Your task to perform on an android device: Go to Google maps Image 0: 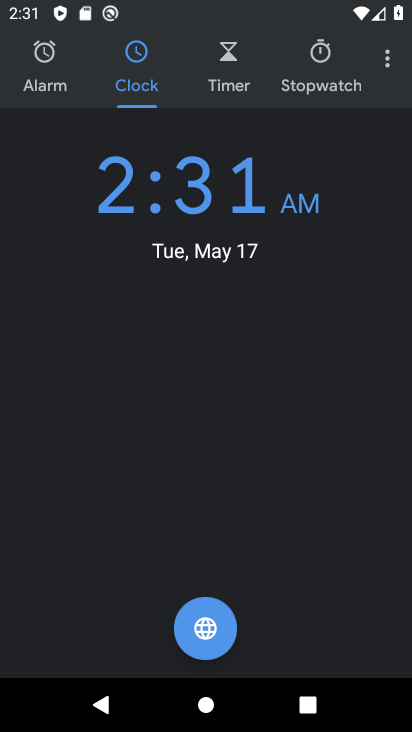
Step 0: press home button
Your task to perform on an android device: Go to Google maps Image 1: 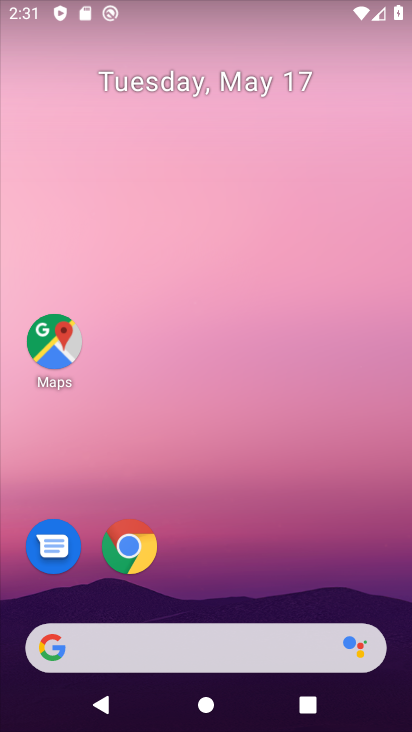
Step 1: press home button
Your task to perform on an android device: Go to Google maps Image 2: 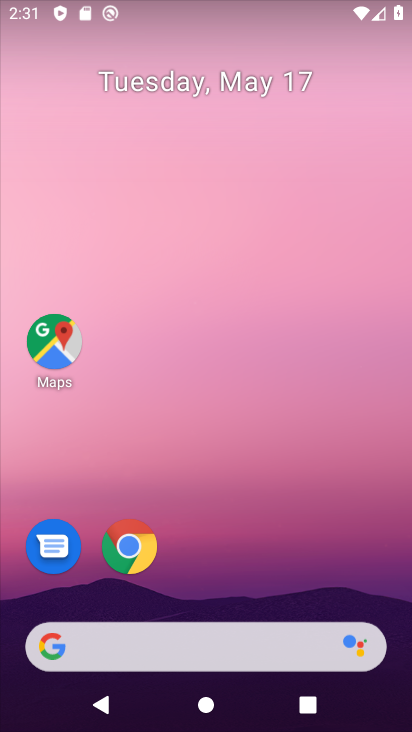
Step 2: click (51, 343)
Your task to perform on an android device: Go to Google maps Image 3: 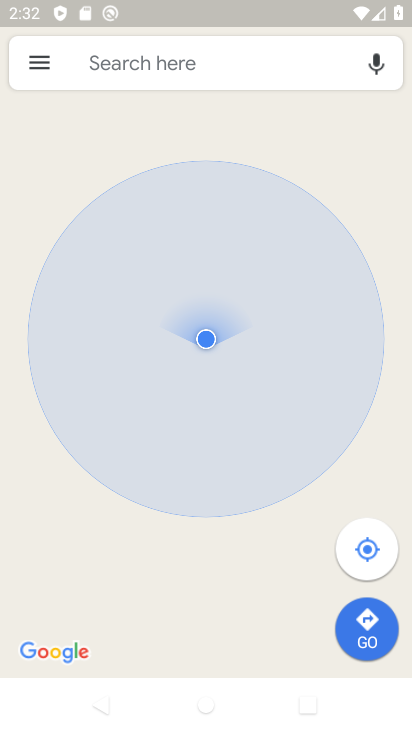
Step 3: task complete